Your task to perform on an android device: show emergency info Image 0: 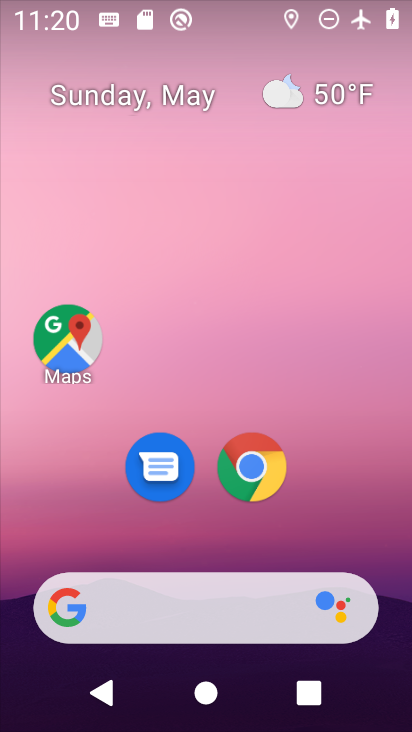
Step 0: drag from (209, 206) to (289, 41)
Your task to perform on an android device: show emergency info Image 1: 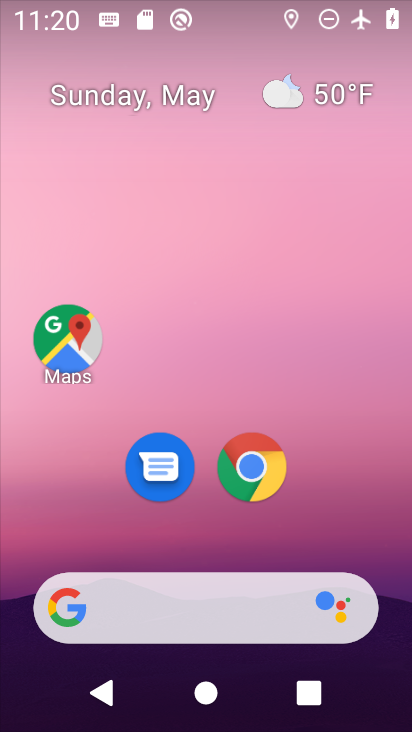
Step 1: drag from (212, 512) to (201, 86)
Your task to perform on an android device: show emergency info Image 2: 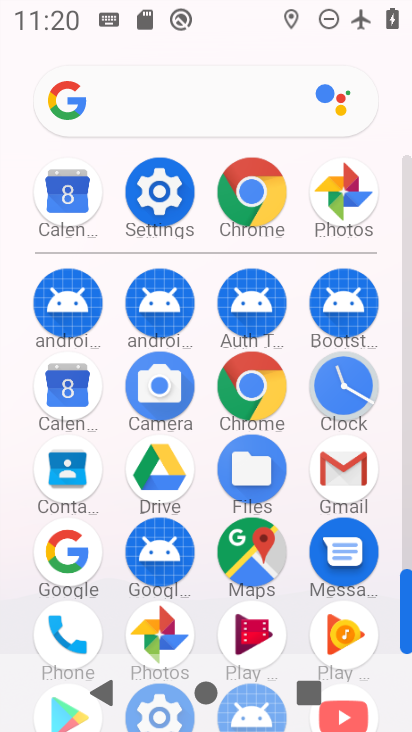
Step 2: click (166, 193)
Your task to perform on an android device: show emergency info Image 3: 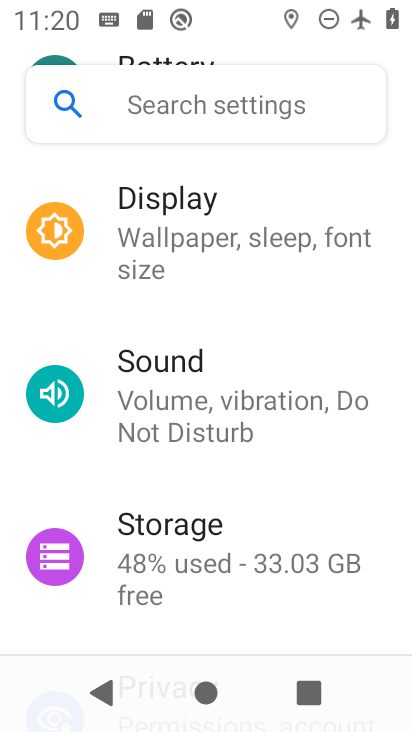
Step 3: drag from (231, 532) to (224, 186)
Your task to perform on an android device: show emergency info Image 4: 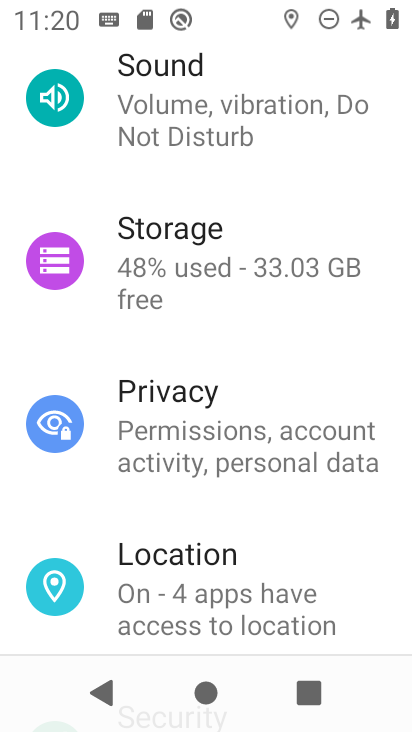
Step 4: drag from (212, 514) to (214, 125)
Your task to perform on an android device: show emergency info Image 5: 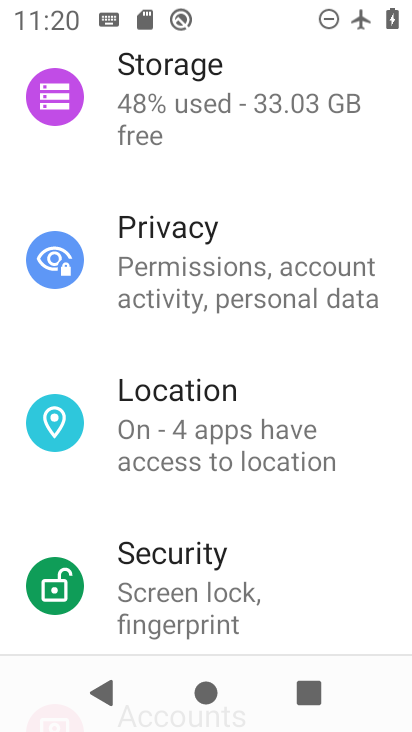
Step 5: drag from (264, 573) to (242, 159)
Your task to perform on an android device: show emergency info Image 6: 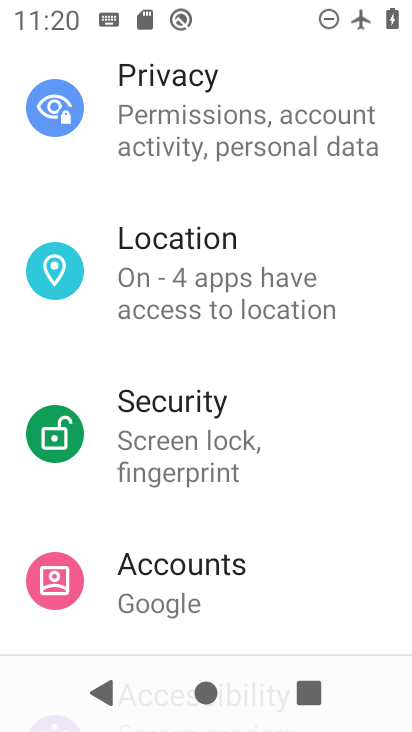
Step 6: drag from (252, 577) to (265, 180)
Your task to perform on an android device: show emergency info Image 7: 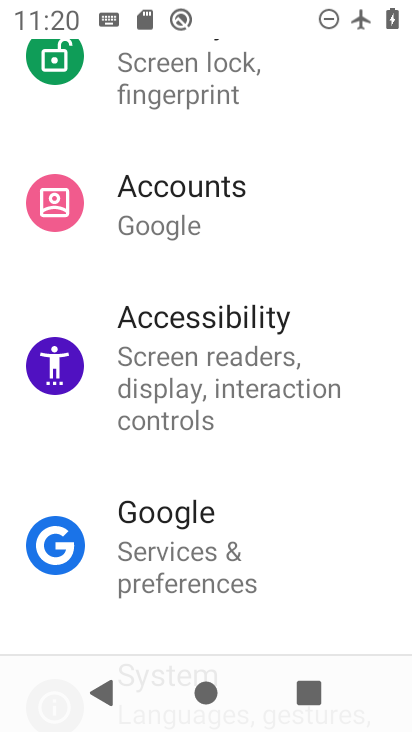
Step 7: drag from (264, 604) to (257, 207)
Your task to perform on an android device: show emergency info Image 8: 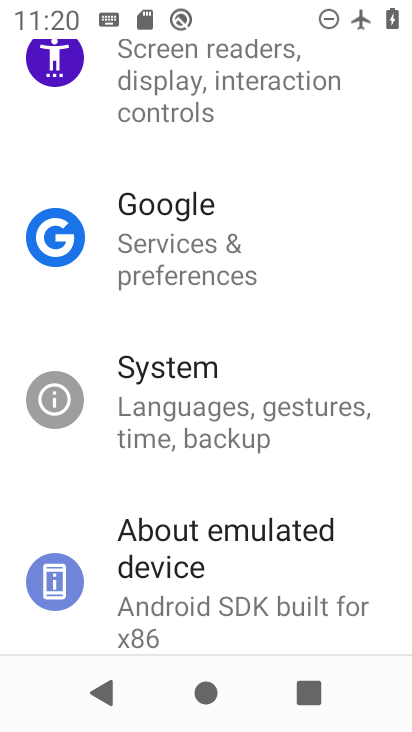
Step 8: drag from (237, 630) to (228, 353)
Your task to perform on an android device: show emergency info Image 9: 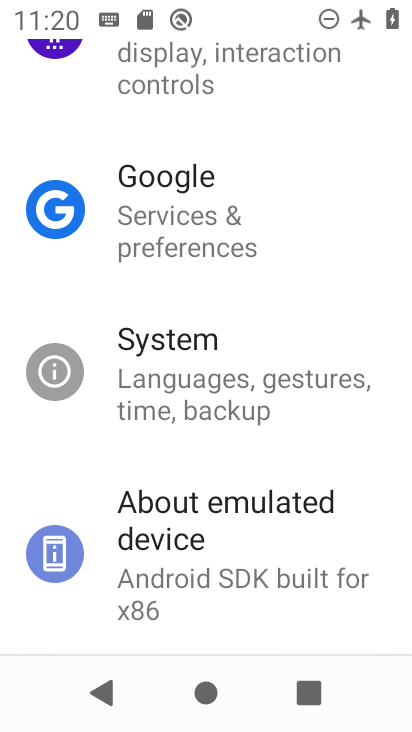
Step 9: drag from (261, 592) to (270, 338)
Your task to perform on an android device: show emergency info Image 10: 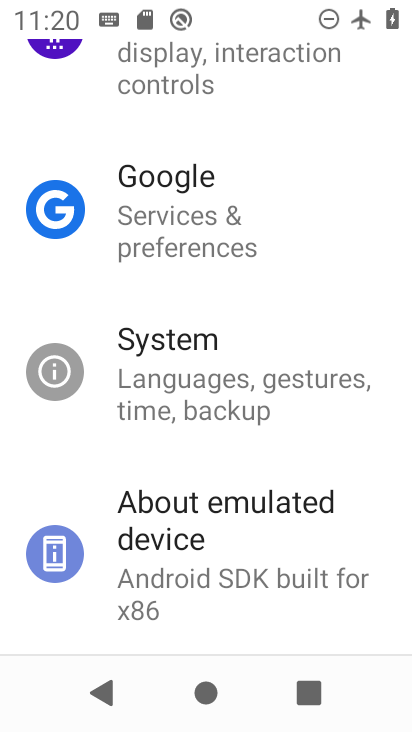
Step 10: click (250, 526)
Your task to perform on an android device: show emergency info Image 11: 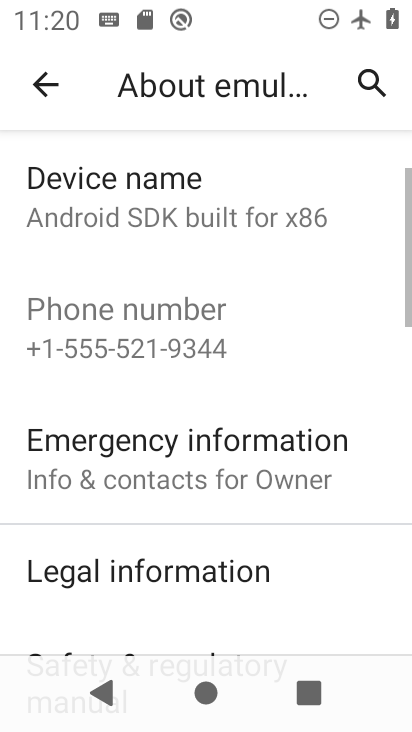
Step 11: click (252, 442)
Your task to perform on an android device: show emergency info Image 12: 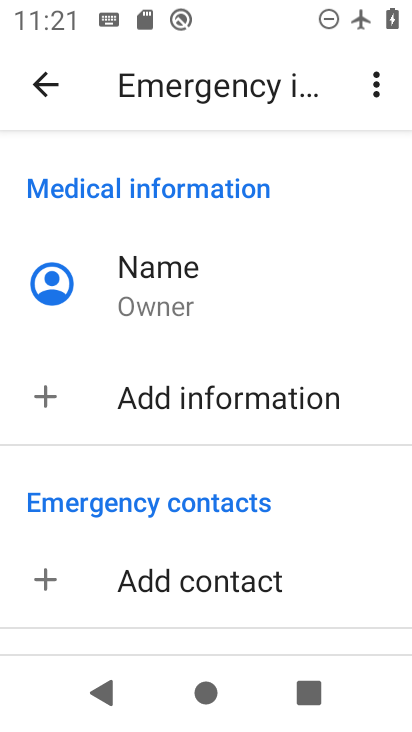
Step 12: task complete